Your task to perform on an android device: turn on sleep mode Image 0: 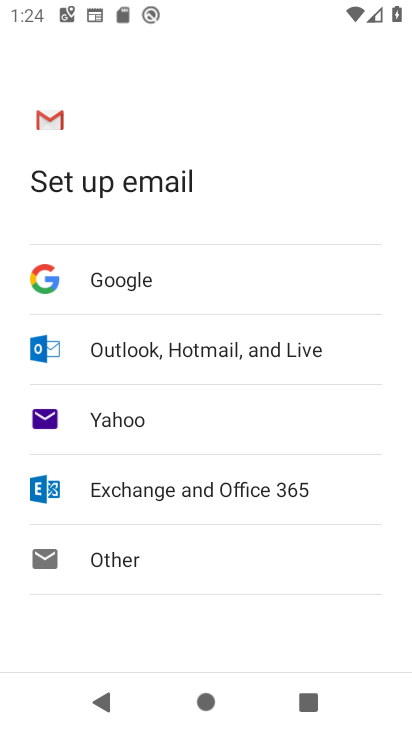
Step 0: press home button
Your task to perform on an android device: turn on sleep mode Image 1: 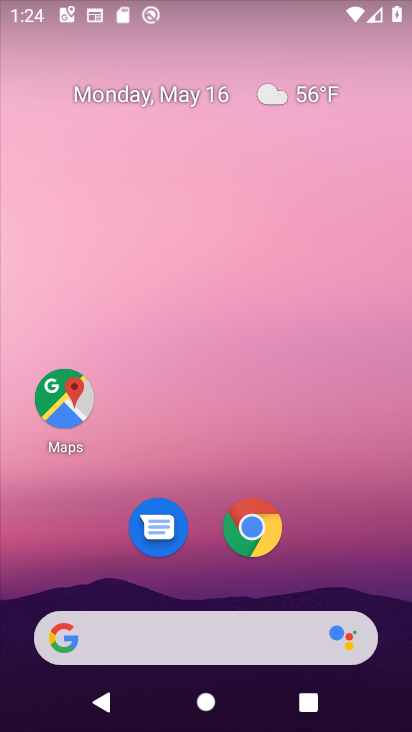
Step 1: drag from (204, 654) to (218, 242)
Your task to perform on an android device: turn on sleep mode Image 2: 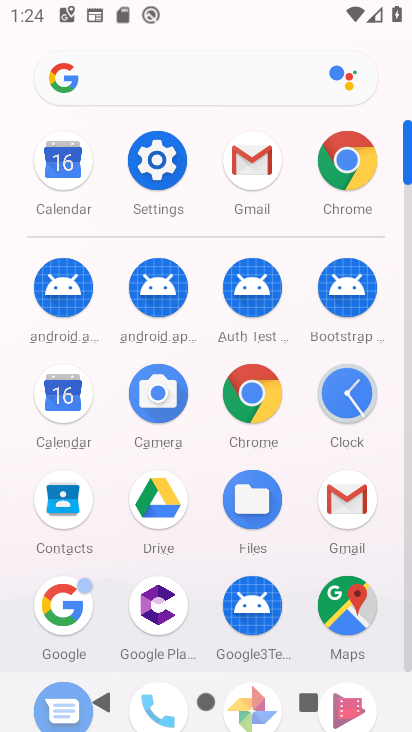
Step 2: click (167, 166)
Your task to perform on an android device: turn on sleep mode Image 3: 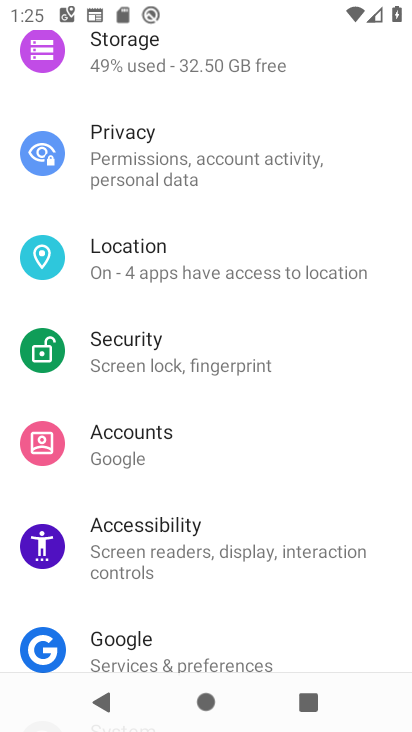
Step 3: drag from (160, 230) to (162, 523)
Your task to perform on an android device: turn on sleep mode Image 4: 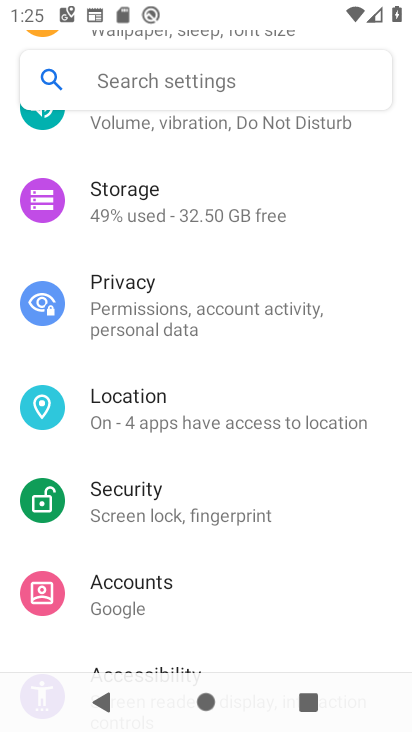
Step 4: drag from (175, 272) to (154, 538)
Your task to perform on an android device: turn on sleep mode Image 5: 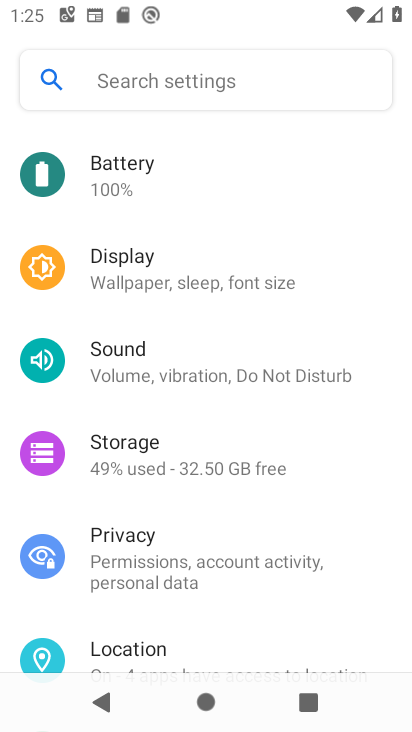
Step 5: click (142, 272)
Your task to perform on an android device: turn on sleep mode Image 6: 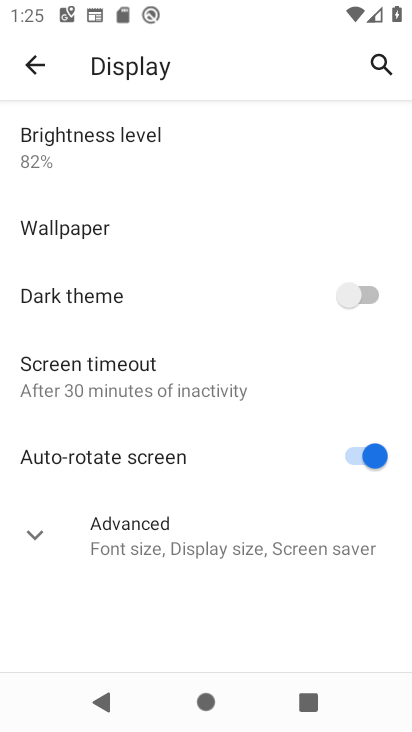
Step 6: click (126, 542)
Your task to perform on an android device: turn on sleep mode Image 7: 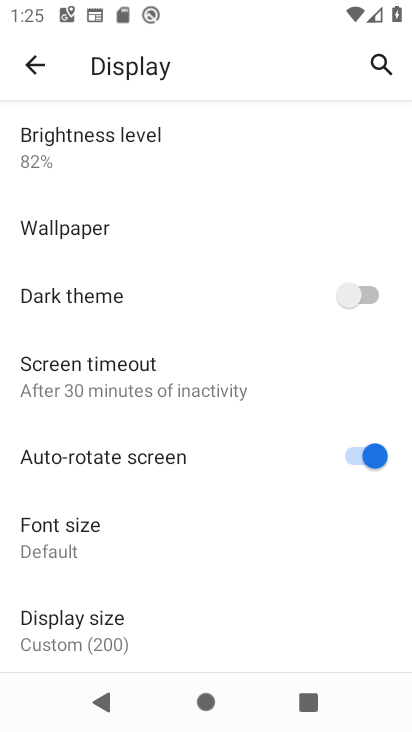
Step 7: task complete